Your task to perform on an android device: turn on the 24-hour format for clock Image 0: 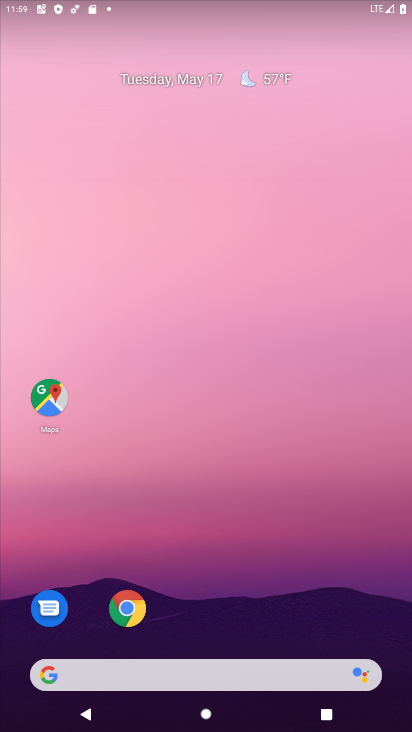
Step 0: drag from (211, 500) to (136, 30)
Your task to perform on an android device: turn on the 24-hour format for clock Image 1: 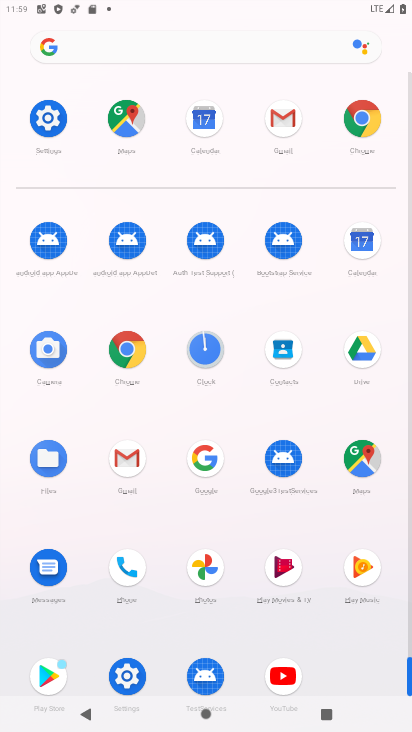
Step 1: click (203, 343)
Your task to perform on an android device: turn on the 24-hour format for clock Image 2: 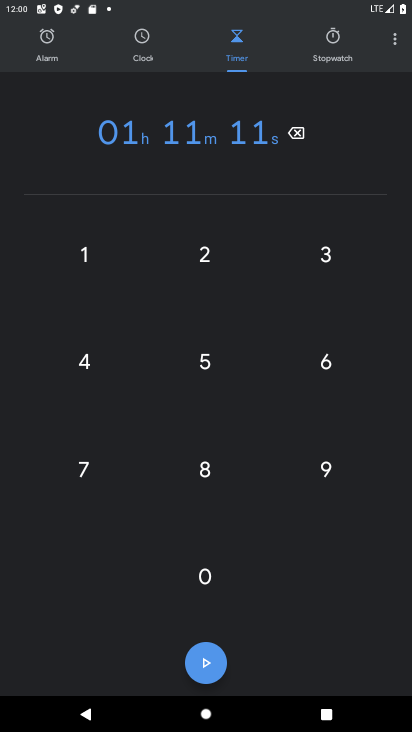
Step 2: click (389, 41)
Your task to perform on an android device: turn on the 24-hour format for clock Image 3: 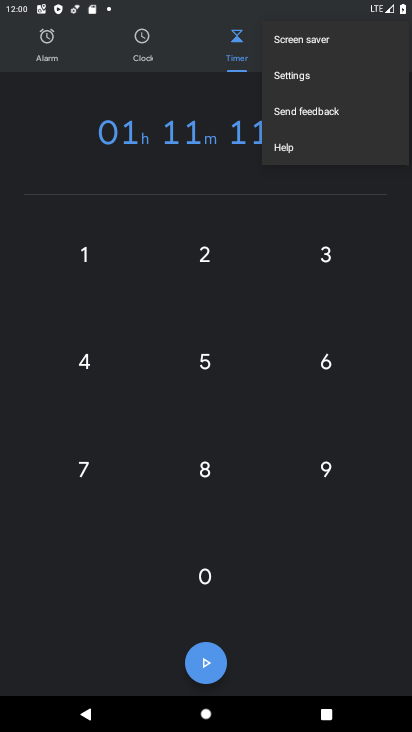
Step 3: click (302, 65)
Your task to perform on an android device: turn on the 24-hour format for clock Image 4: 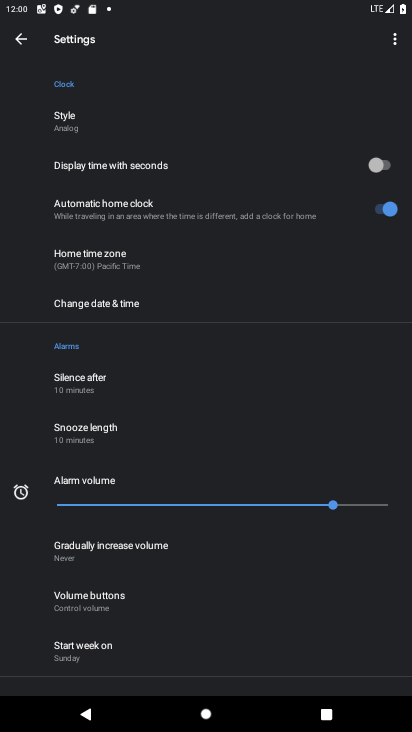
Step 4: click (116, 301)
Your task to perform on an android device: turn on the 24-hour format for clock Image 5: 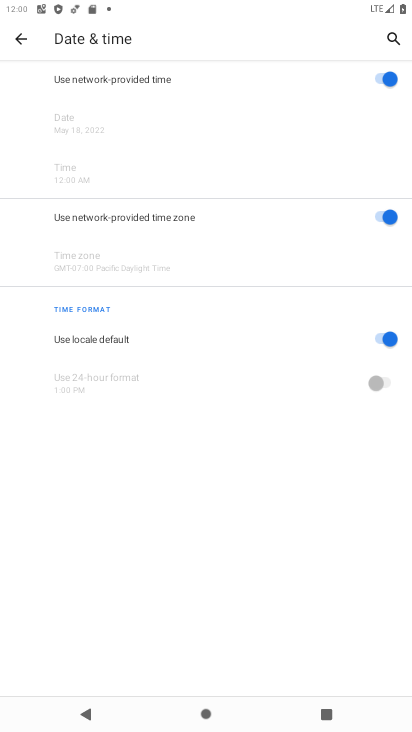
Step 5: click (372, 380)
Your task to perform on an android device: turn on the 24-hour format for clock Image 6: 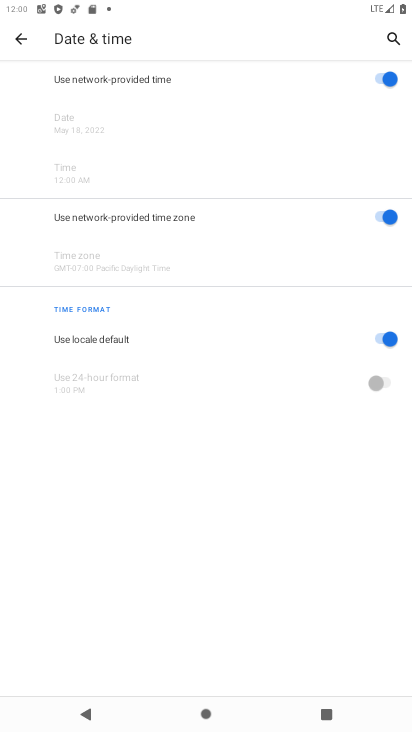
Step 6: click (388, 340)
Your task to perform on an android device: turn on the 24-hour format for clock Image 7: 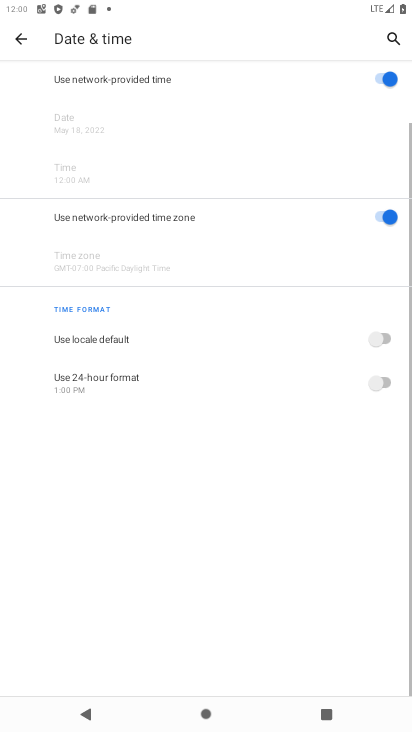
Step 7: click (371, 370)
Your task to perform on an android device: turn on the 24-hour format for clock Image 8: 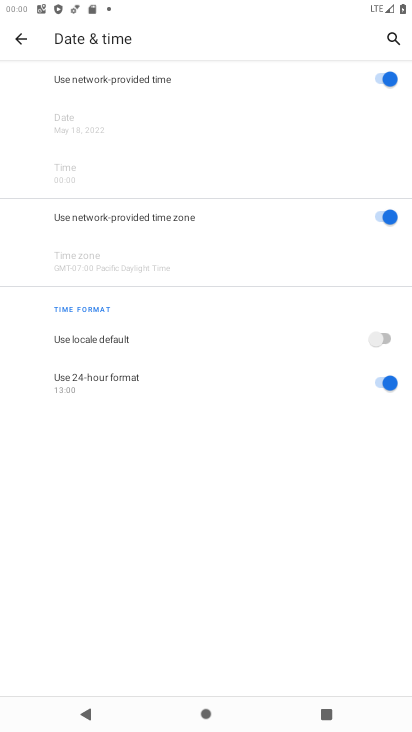
Step 8: task complete